Your task to perform on an android device: Search for sushi restaurants on Maps Image 0: 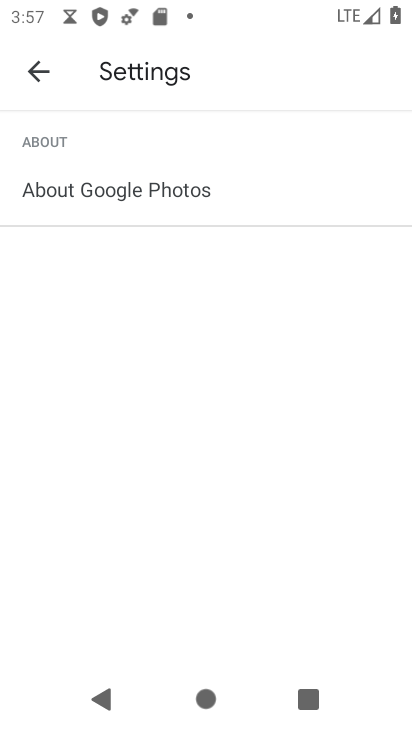
Step 0: press home button
Your task to perform on an android device: Search for sushi restaurants on Maps Image 1: 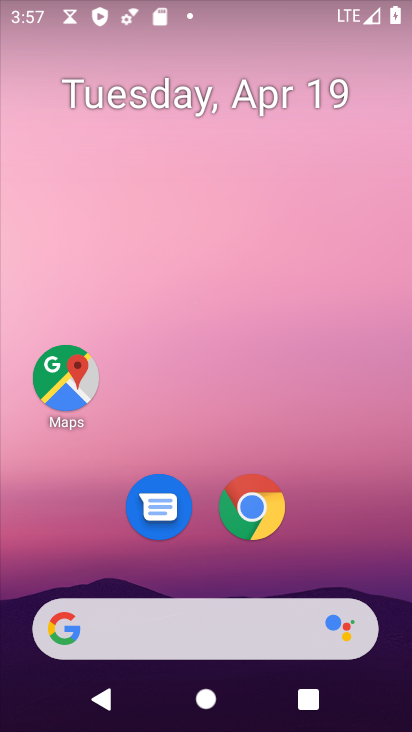
Step 1: click (53, 381)
Your task to perform on an android device: Search for sushi restaurants on Maps Image 2: 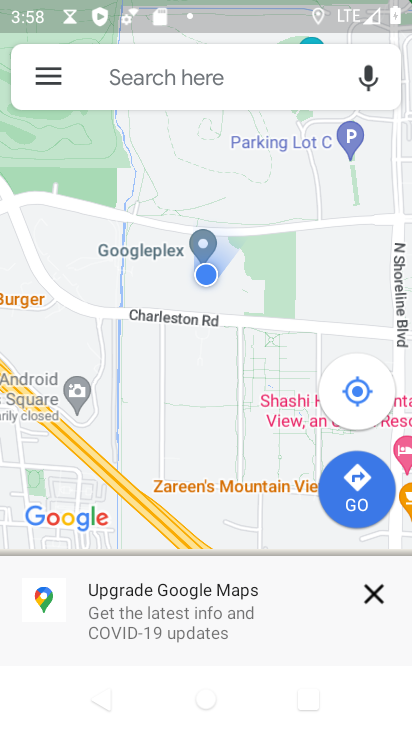
Step 2: click (197, 76)
Your task to perform on an android device: Search for sushi restaurants on Maps Image 3: 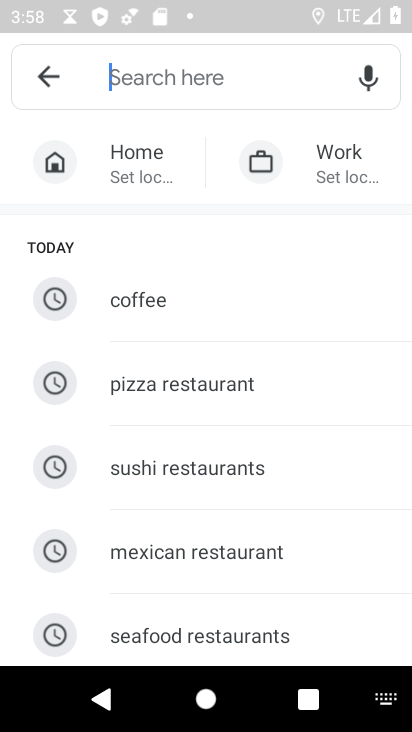
Step 3: type "sushi restaurants"
Your task to perform on an android device: Search for sushi restaurants on Maps Image 4: 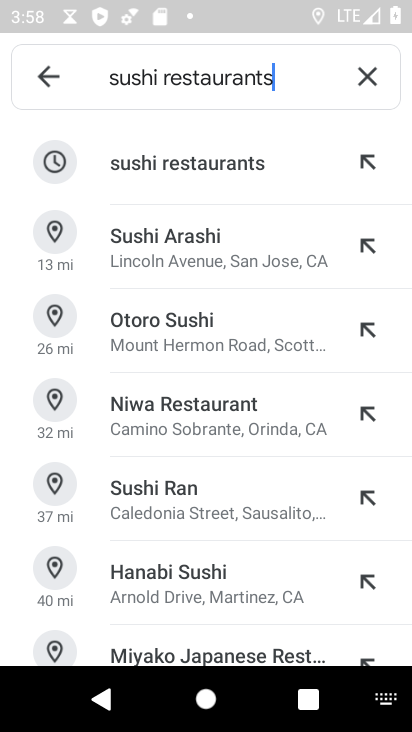
Step 4: click (150, 161)
Your task to perform on an android device: Search for sushi restaurants on Maps Image 5: 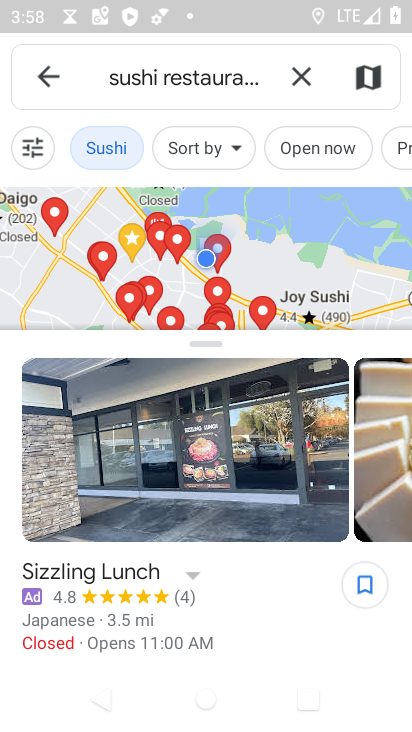
Step 5: task complete